Your task to perform on an android device: snooze an email in the gmail app Image 0: 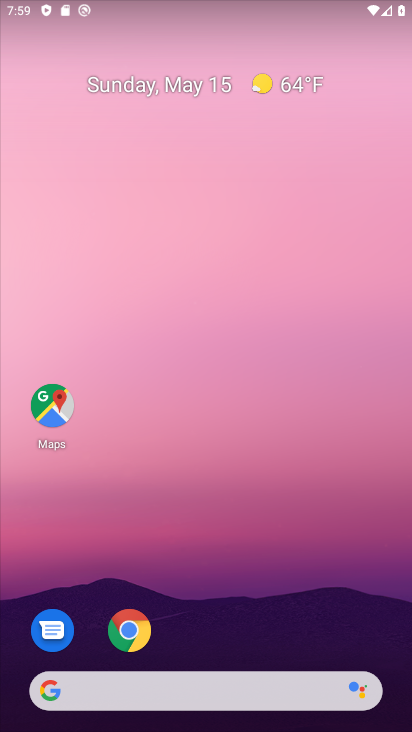
Step 0: drag from (322, 571) to (223, 6)
Your task to perform on an android device: snooze an email in the gmail app Image 1: 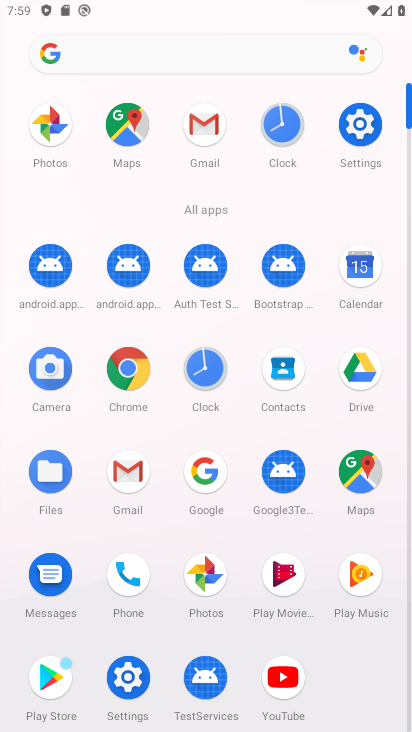
Step 1: click (215, 113)
Your task to perform on an android device: snooze an email in the gmail app Image 2: 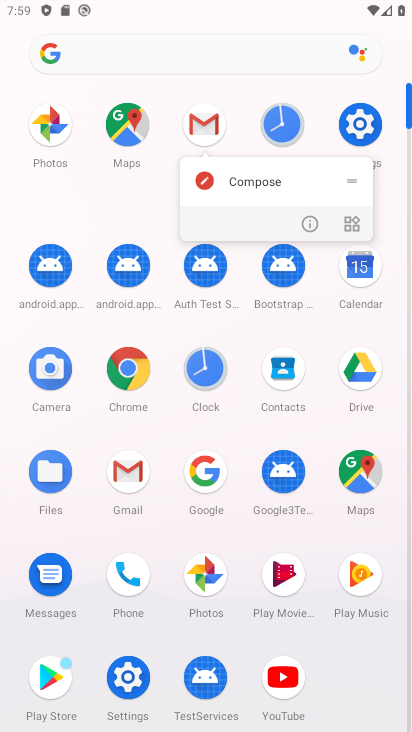
Step 2: click (197, 135)
Your task to perform on an android device: snooze an email in the gmail app Image 3: 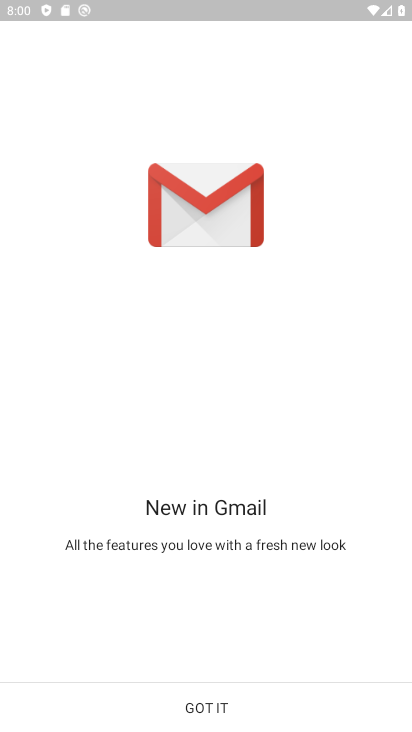
Step 3: click (195, 710)
Your task to perform on an android device: snooze an email in the gmail app Image 4: 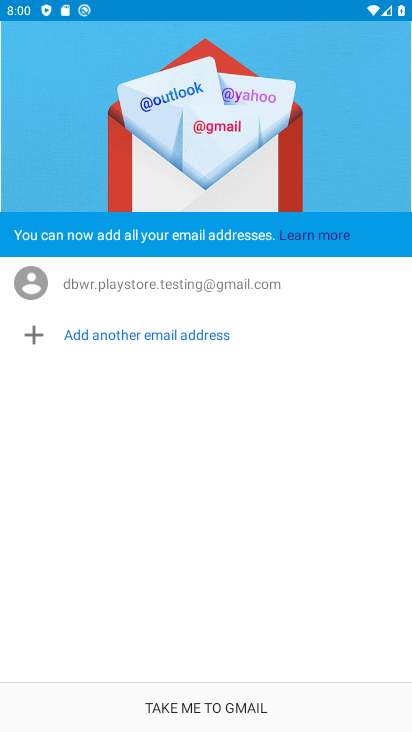
Step 4: click (195, 708)
Your task to perform on an android device: snooze an email in the gmail app Image 5: 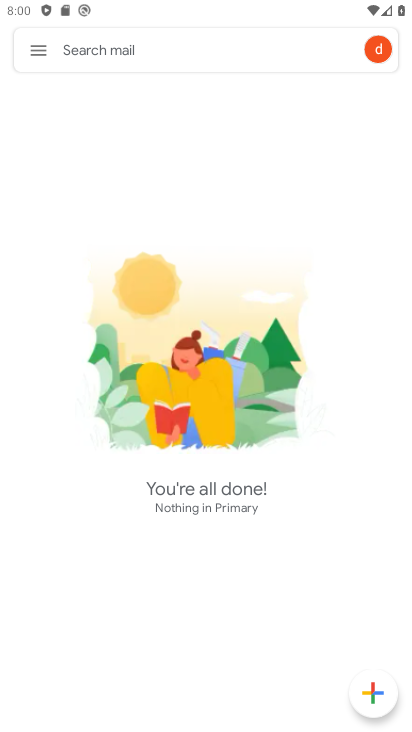
Step 5: click (42, 56)
Your task to perform on an android device: snooze an email in the gmail app Image 6: 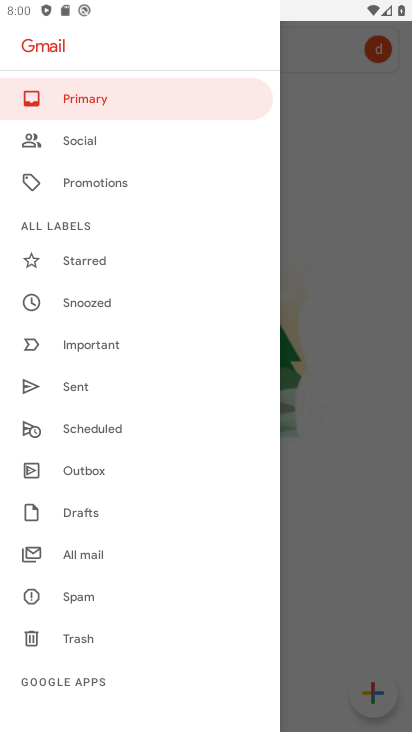
Step 6: click (95, 561)
Your task to perform on an android device: snooze an email in the gmail app Image 7: 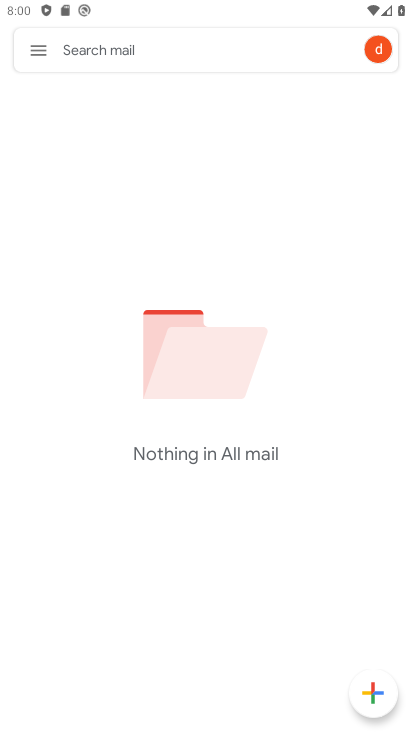
Step 7: task complete